Your task to perform on an android device: allow notifications from all sites in the chrome app Image 0: 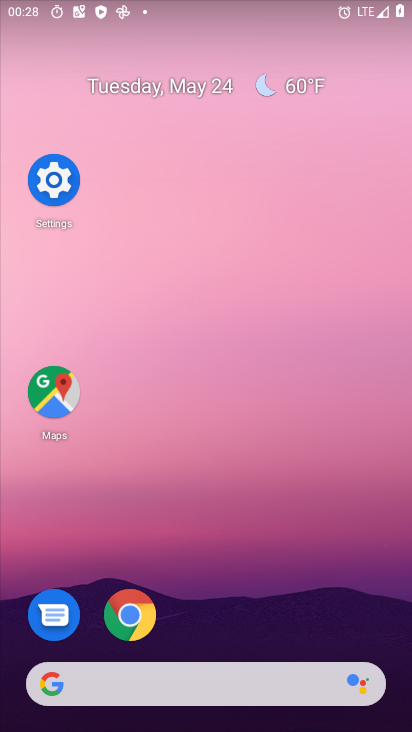
Step 0: drag from (209, 591) to (269, 104)
Your task to perform on an android device: allow notifications from all sites in the chrome app Image 1: 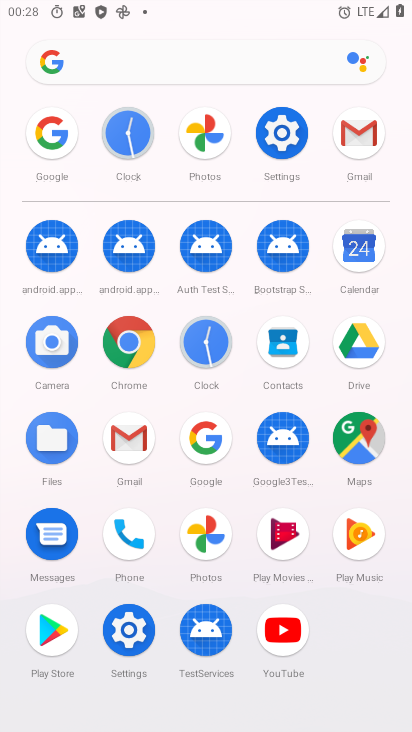
Step 1: click (133, 341)
Your task to perform on an android device: allow notifications from all sites in the chrome app Image 2: 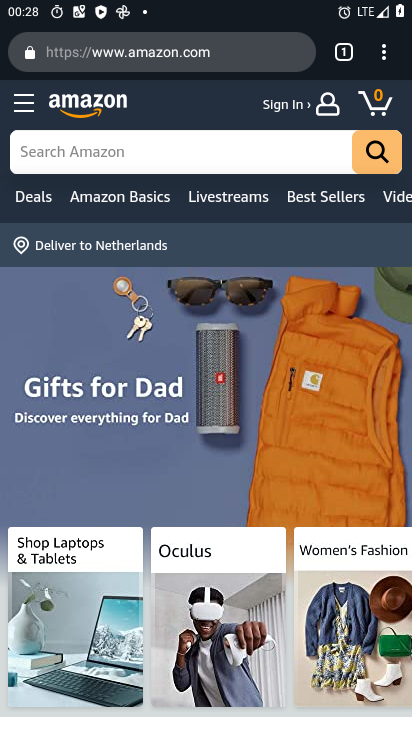
Step 2: click (378, 64)
Your task to perform on an android device: allow notifications from all sites in the chrome app Image 3: 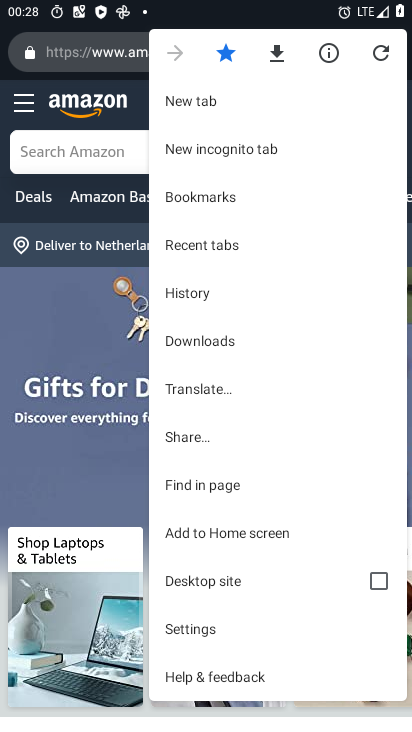
Step 3: click (216, 631)
Your task to perform on an android device: allow notifications from all sites in the chrome app Image 4: 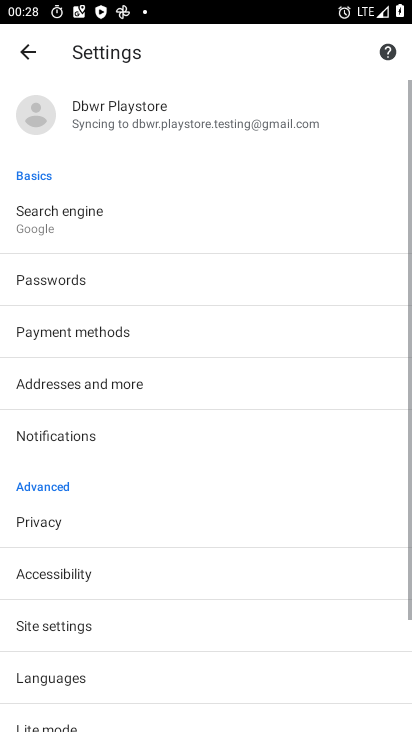
Step 4: drag from (194, 631) to (203, 234)
Your task to perform on an android device: allow notifications from all sites in the chrome app Image 5: 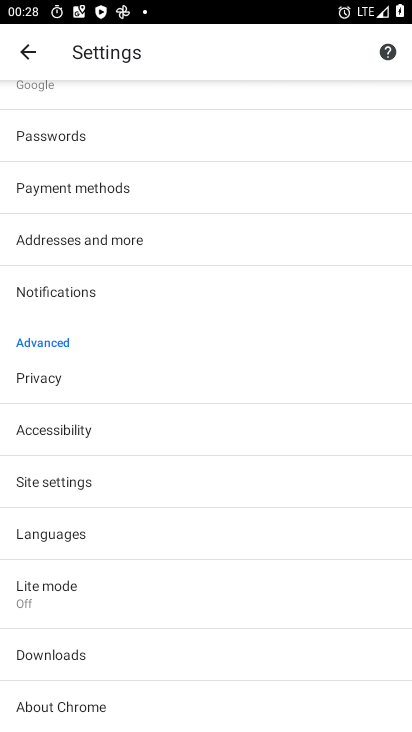
Step 5: click (52, 480)
Your task to perform on an android device: allow notifications from all sites in the chrome app Image 6: 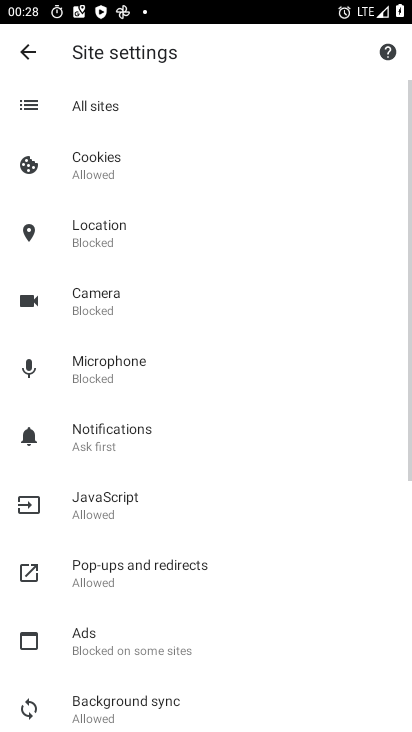
Step 6: click (126, 431)
Your task to perform on an android device: allow notifications from all sites in the chrome app Image 7: 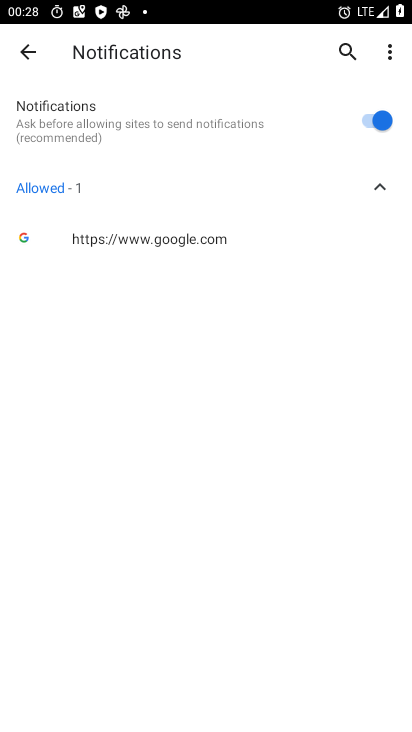
Step 7: task complete